Your task to perform on an android device: Open accessibility settings Image 0: 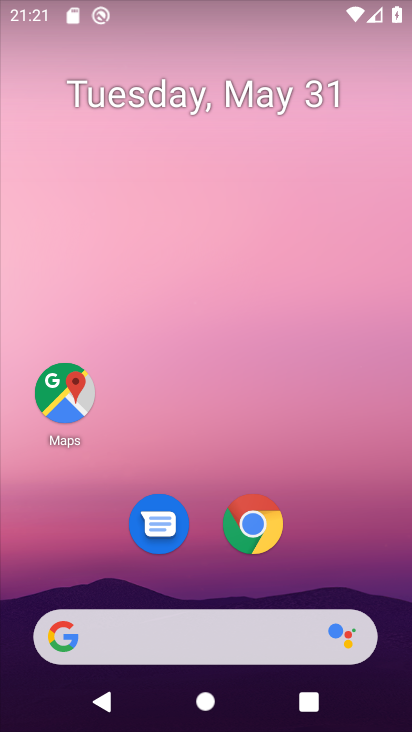
Step 0: drag from (194, 557) to (213, 19)
Your task to perform on an android device: Open accessibility settings Image 1: 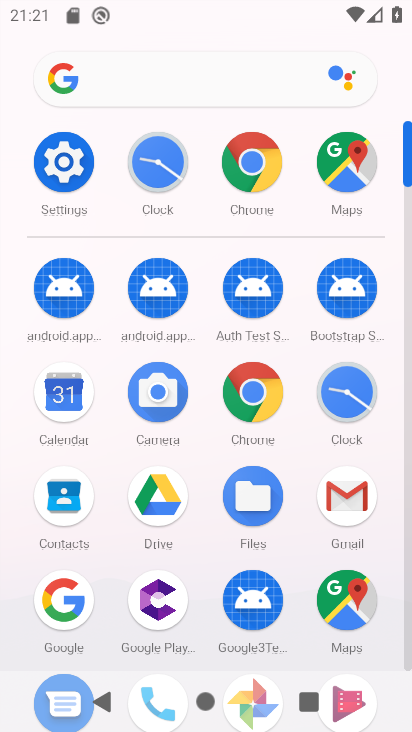
Step 1: click (72, 170)
Your task to perform on an android device: Open accessibility settings Image 2: 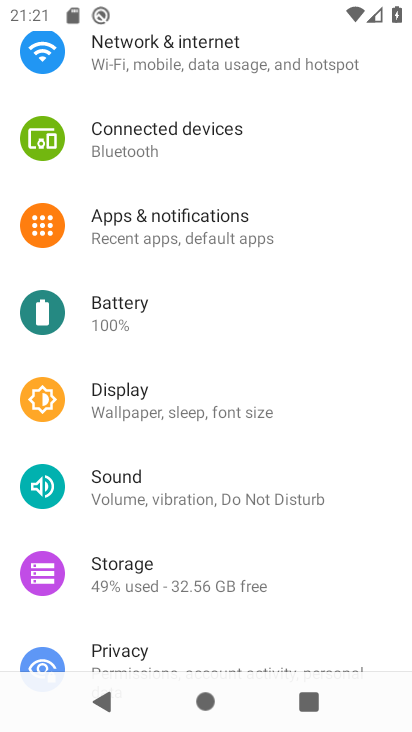
Step 2: drag from (255, 513) to (242, 115)
Your task to perform on an android device: Open accessibility settings Image 3: 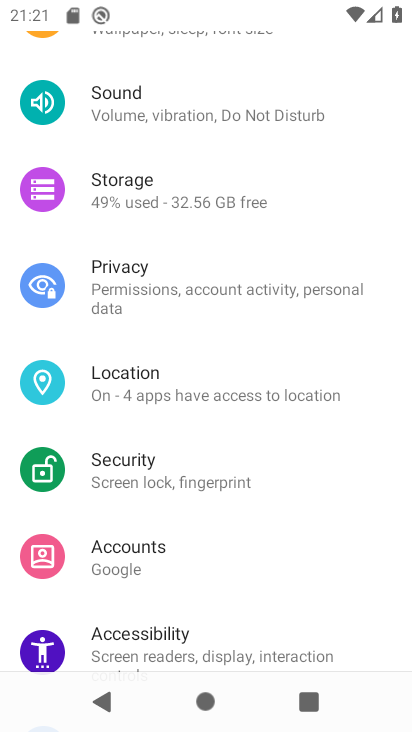
Step 3: click (189, 641)
Your task to perform on an android device: Open accessibility settings Image 4: 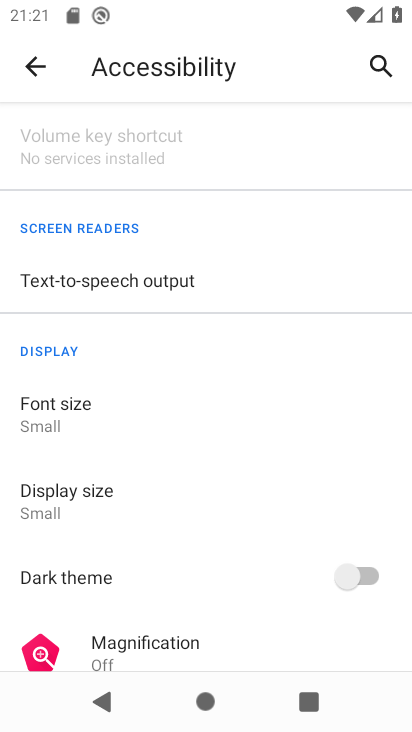
Step 4: task complete